Your task to perform on an android device: Open the stopwatch Image 0: 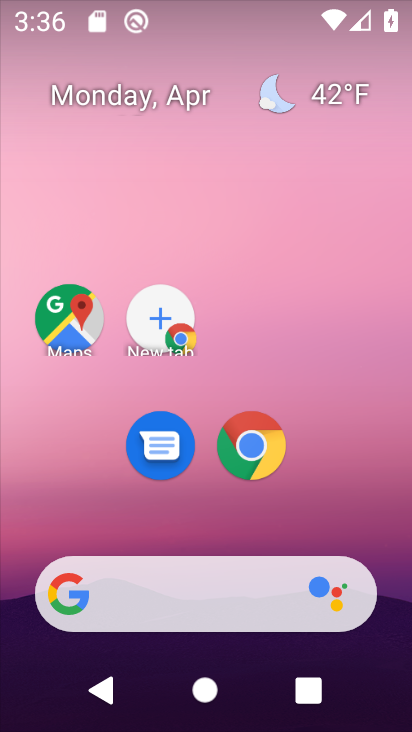
Step 0: drag from (217, 467) to (221, 20)
Your task to perform on an android device: Open the stopwatch Image 1: 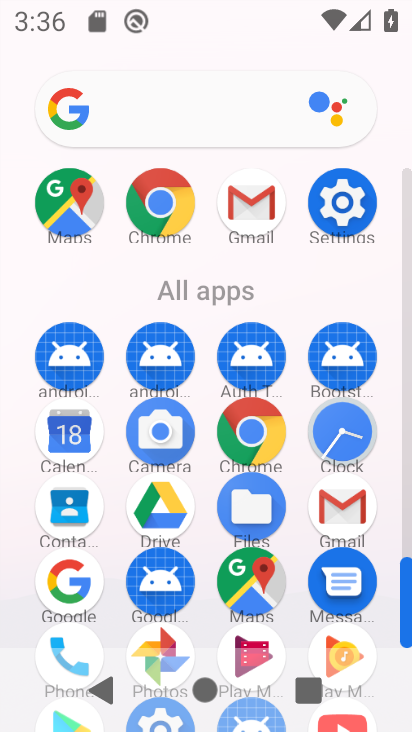
Step 1: click (338, 425)
Your task to perform on an android device: Open the stopwatch Image 2: 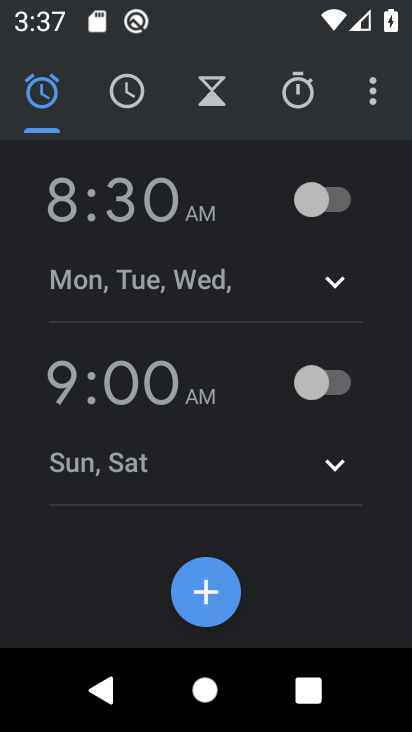
Step 2: click (295, 88)
Your task to perform on an android device: Open the stopwatch Image 3: 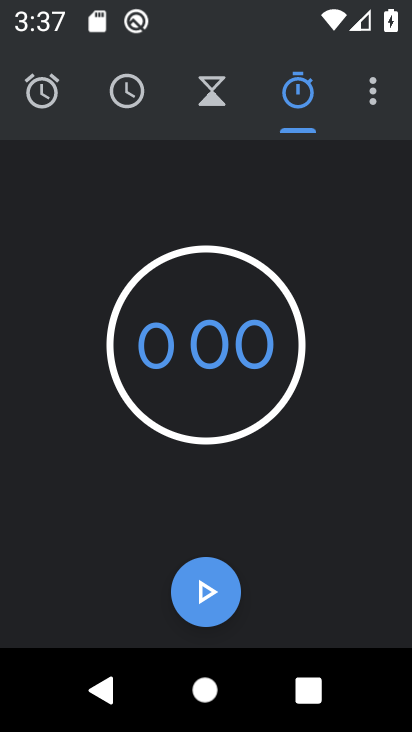
Step 3: click (199, 592)
Your task to perform on an android device: Open the stopwatch Image 4: 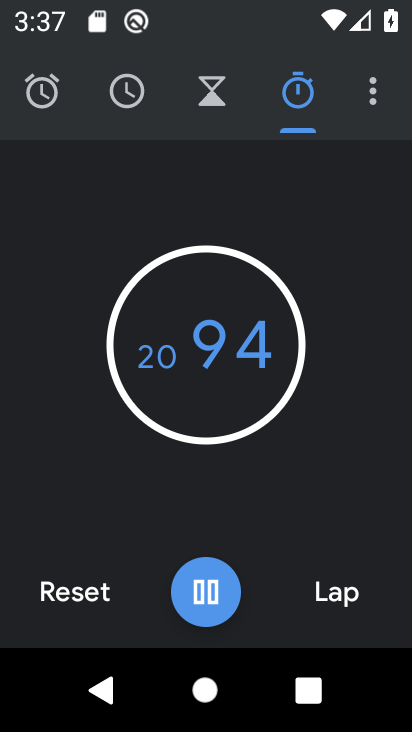
Step 4: click (43, 588)
Your task to perform on an android device: Open the stopwatch Image 5: 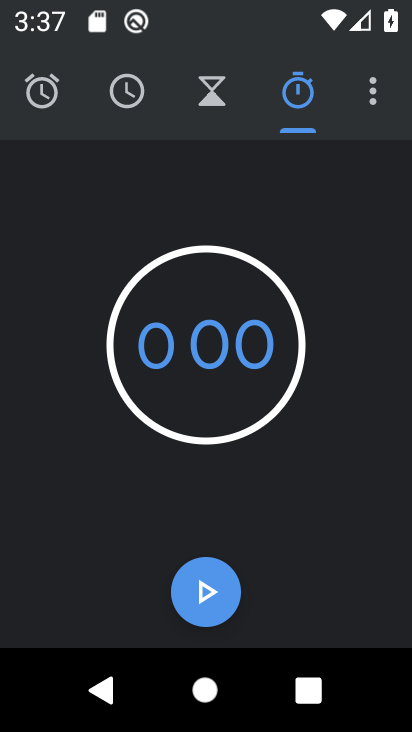
Step 5: task complete